Your task to perform on an android device: Check the settings for the Google Chrome app Image 0: 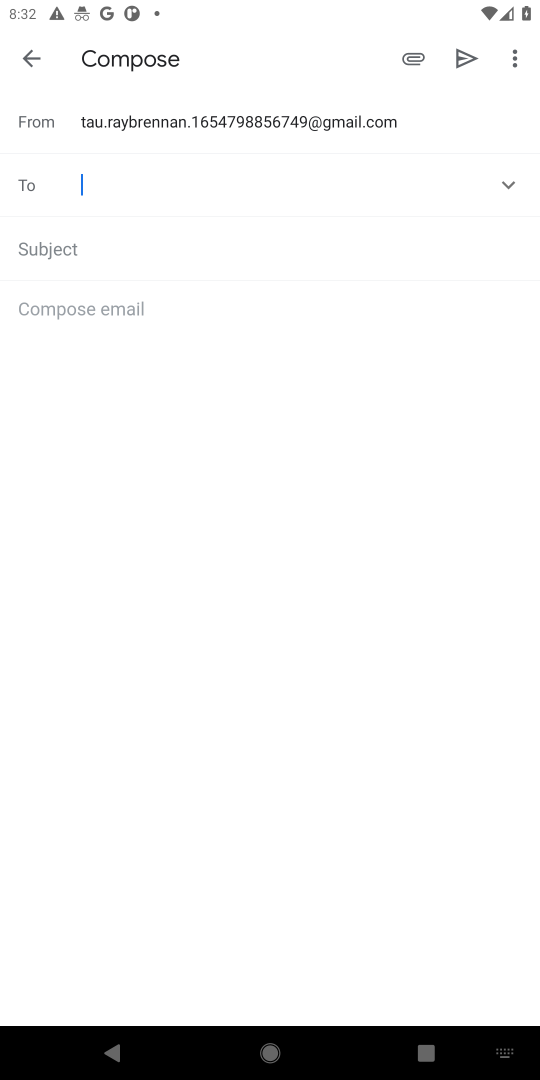
Step 0: press home button
Your task to perform on an android device: Check the settings for the Google Chrome app Image 1: 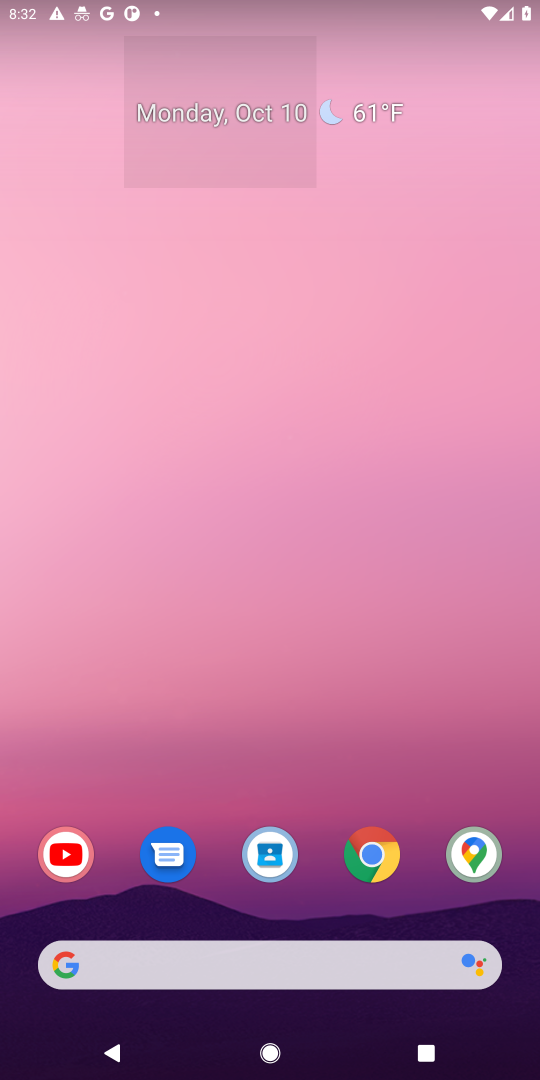
Step 1: click (369, 853)
Your task to perform on an android device: Check the settings for the Google Chrome app Image 2: 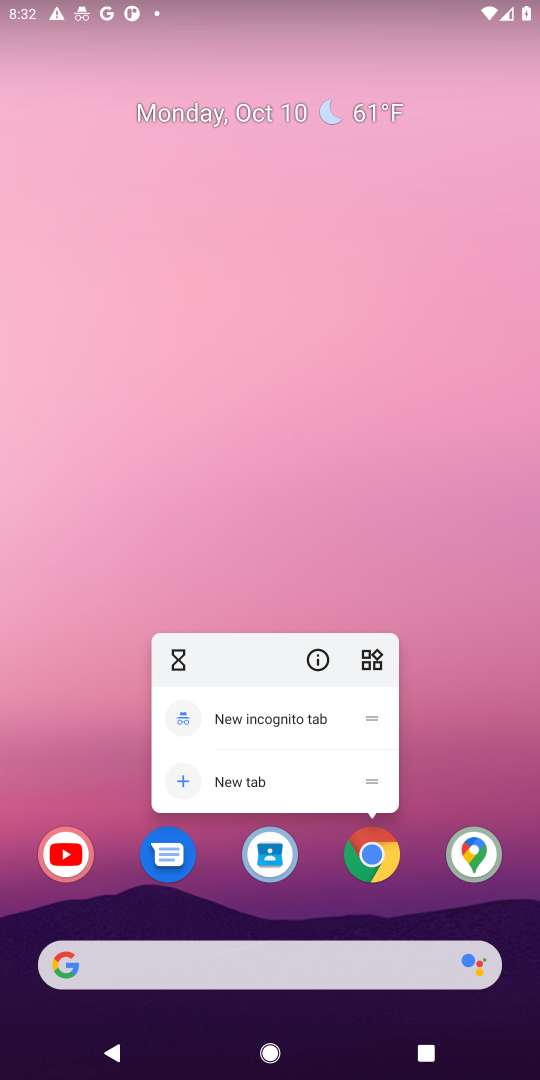
Step 2: click (369, 852)
Your task to perform on an android device: Check the settings for the Google Chrome app Image 3: 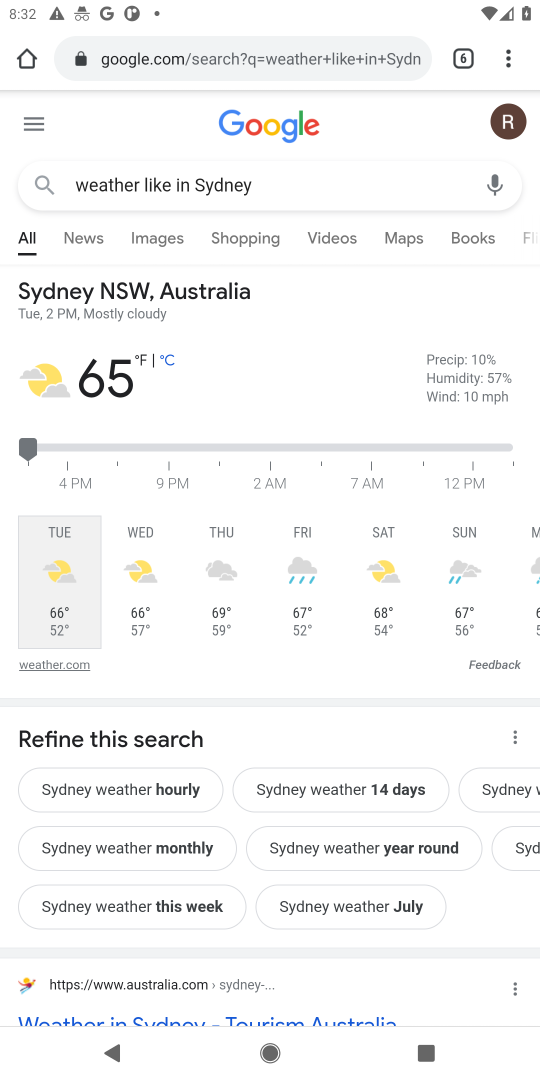
Step 3: task complete